Your task to perform on an android device: Open network settings Image 0: 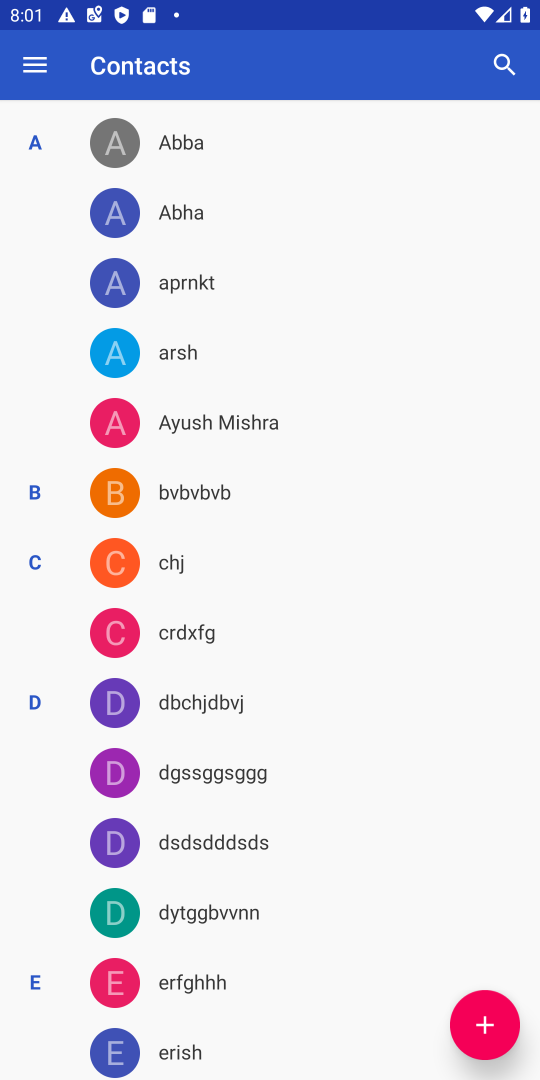
Step 0: press home button
Your task to perform on an android device: Open network settings Image 1: 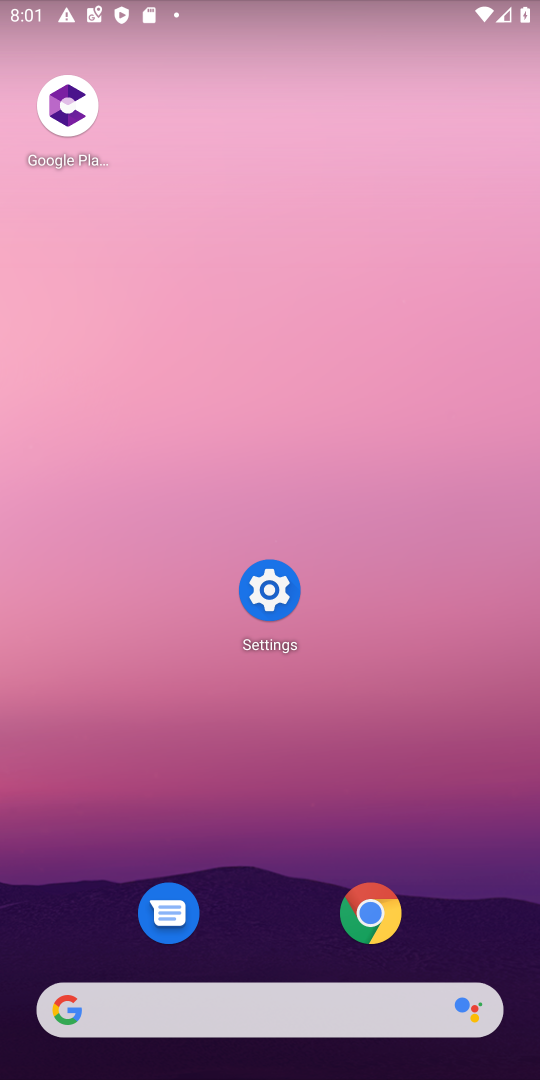
Step 1: drag from (257, 1001) to (453, 355)
Your task to perform on an android device: Open network settings Image 2: 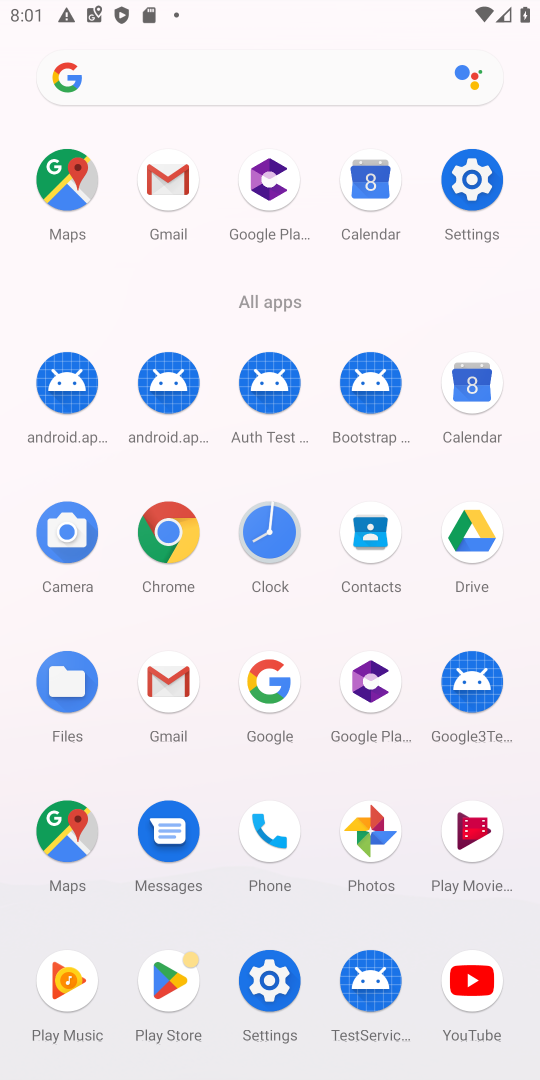
Step 2: click (471, 179)
Your task to perform on an android device: Open network settings Image 3: 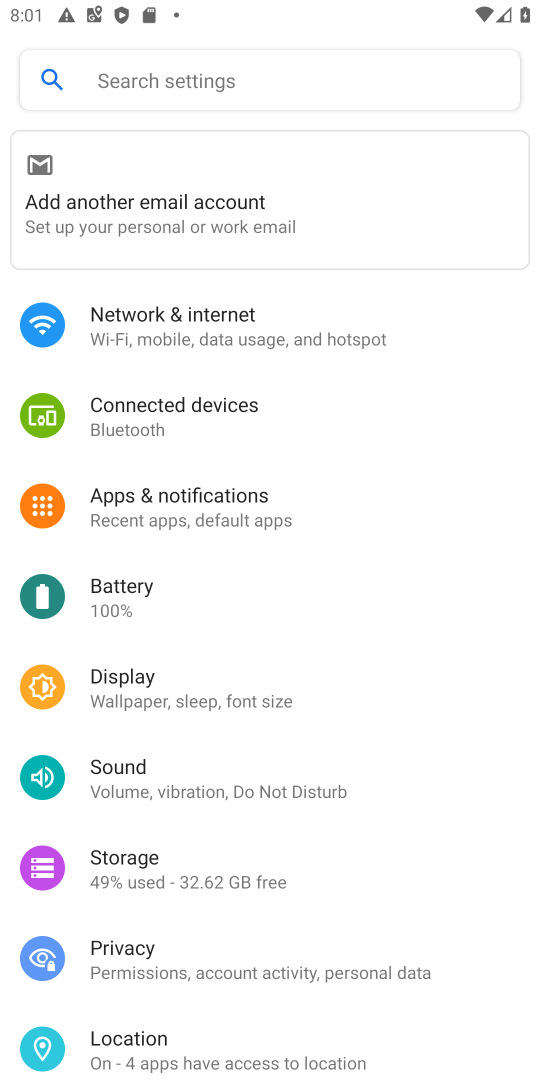
Step 3: click (232, 342)
Your task to perform on an android device: Open network settings Image 4: 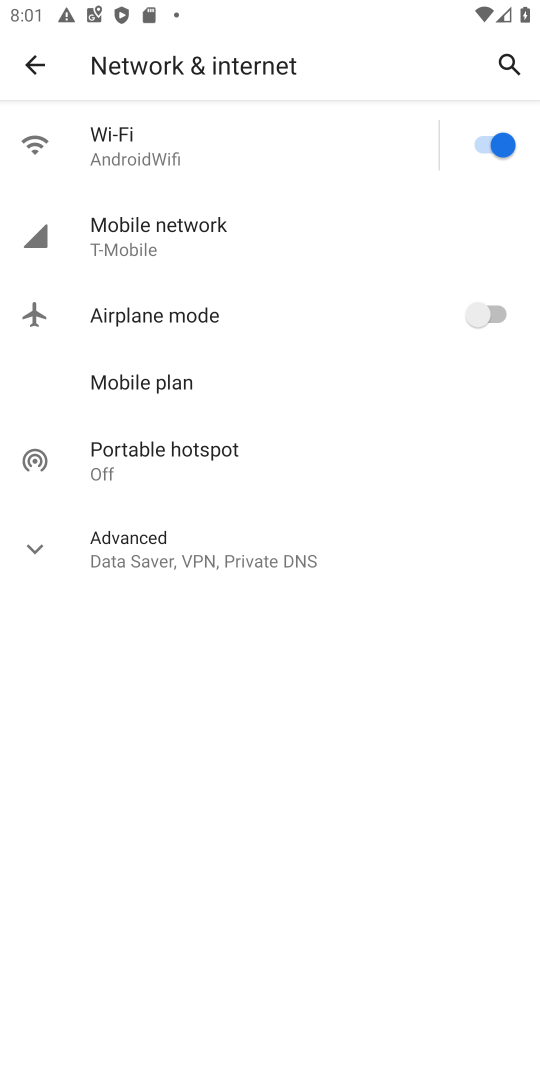
Step 4: task complete